Your task to perform on an android device: Search for vegetarian restaurants on Maps Image 0: 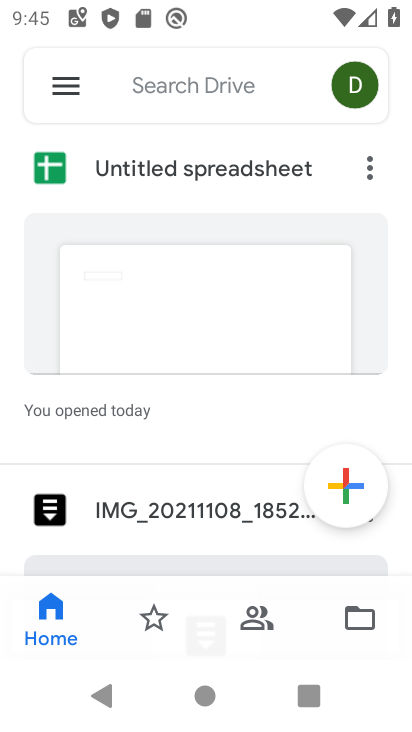
Step 0: press home button
Your task to perform on an android device: Search for vegetarian restaurants on Maps Image 1: 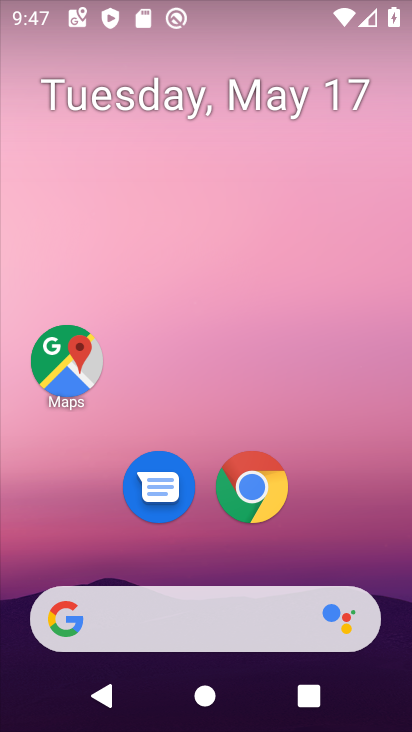
Step 1: drag from (233, 662) to (363, 224)
Your task to perform on an android device: Search for vegetarian restaurants on Maps Image 2: 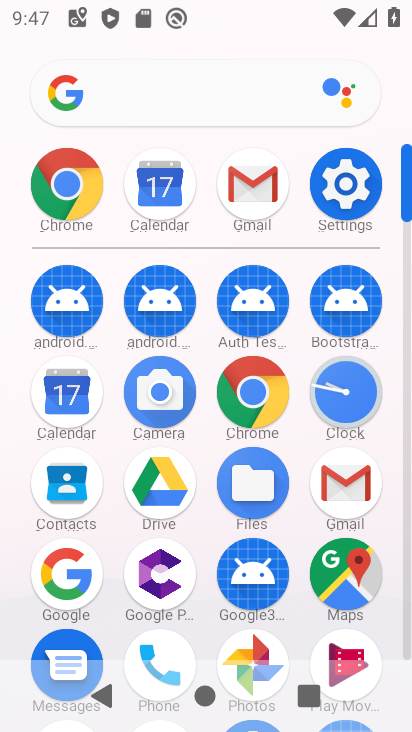
Step 2: click (356, 556)
Your task to perform on an android device: Search for vegetarian restaurants on Maps Image 3: 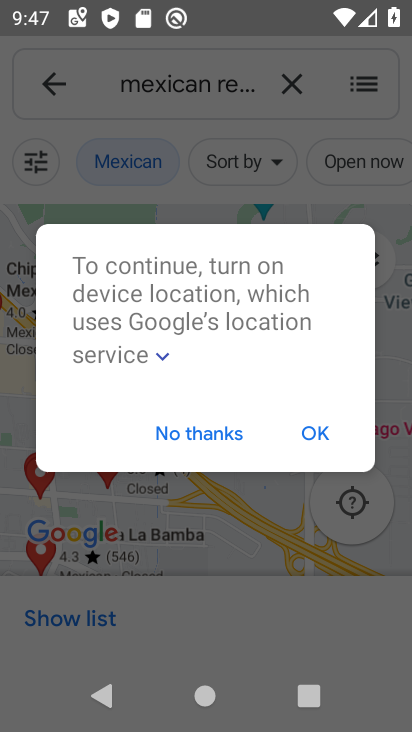
Step 3: click (293, 79)
Your task to perform on an android device: Search for vegetarian restaurants on Maps Image 4: 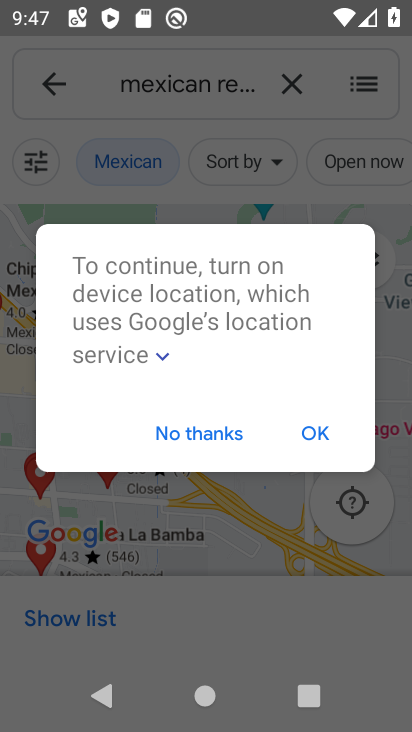
Step 4: click (314, 435)
Your task to perform on an android device: Search for vegetarian restaurants on Maps Image 5: 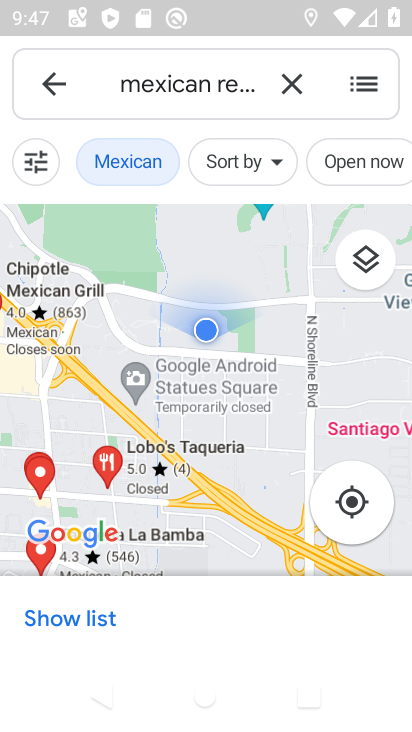
Step 5: click (278, 86)
Your task to perform on an android device: Search for vegetarian restaurants on Maps Image 6: 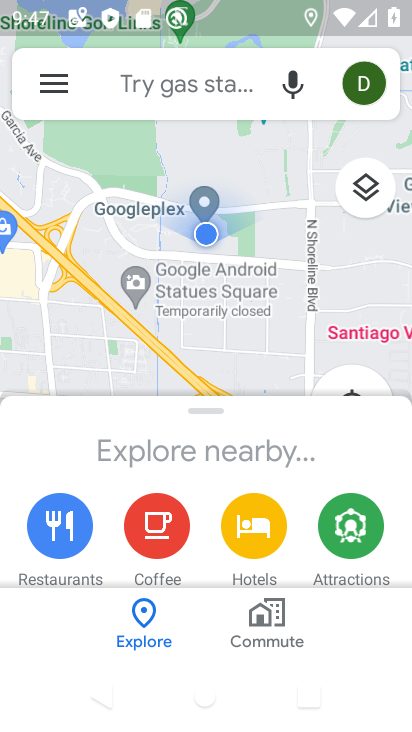
Step 6: click (216, 82)
Your task to perform on an android device: Search for vegetarian restaurants on Maps Image 7: 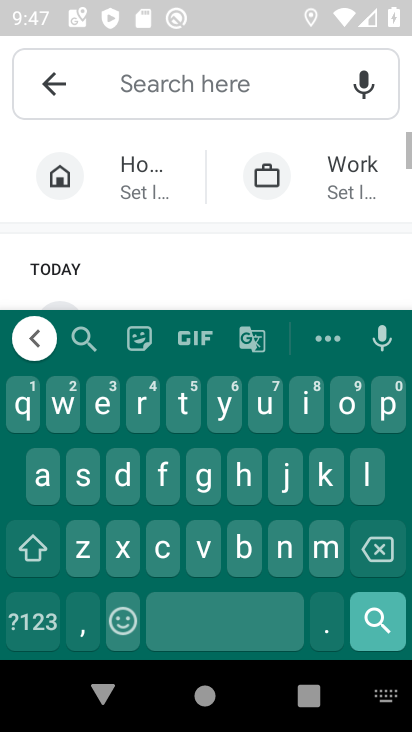
Step 7: click (206, 554)
Your task to perform on an android device: Search for vegetarian restaurants on Maps Image 8: 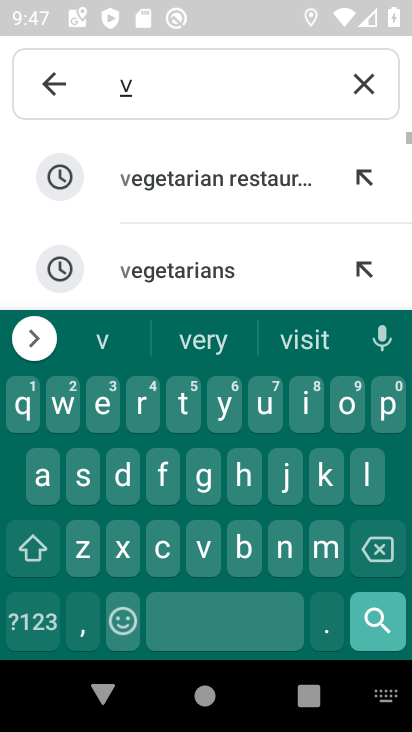
Step 8: click (191, 199)
Your task to perform on an android device: Search for vegetarian restaurants on Maps Image 9: 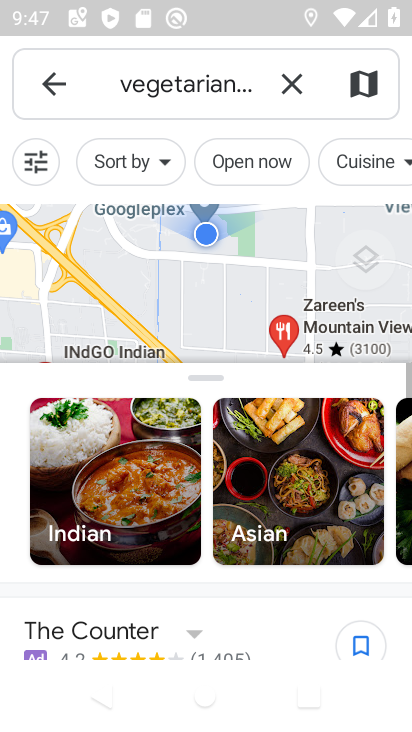
Step 9: task complete